Your task to perform on an android device: Search for vegetarian restaurants on Maps Image 0: 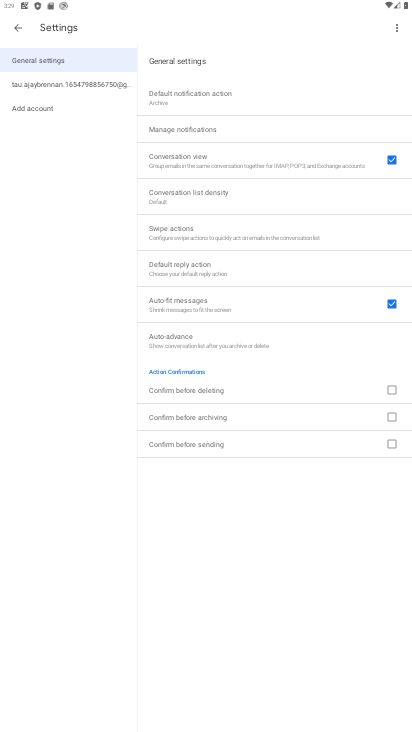
Step 0: press home button
Your task to perform on an android device: Search for vegetarian restaurants on Maps Image 1: 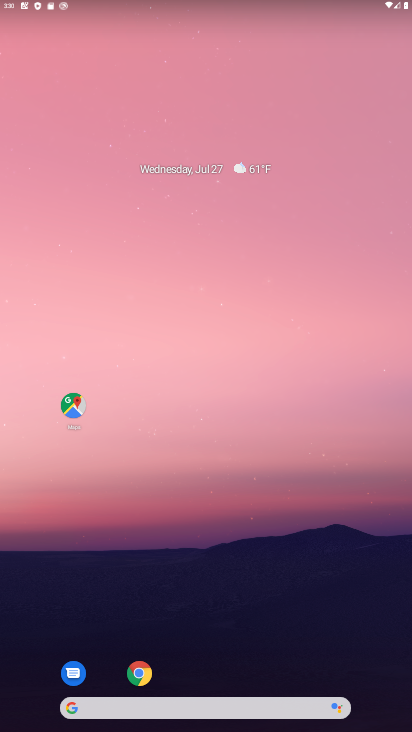
Step 1: click (69, 394)
Your task to perform on an android device: Search for vegetarian restaurants on Maps Image 2: 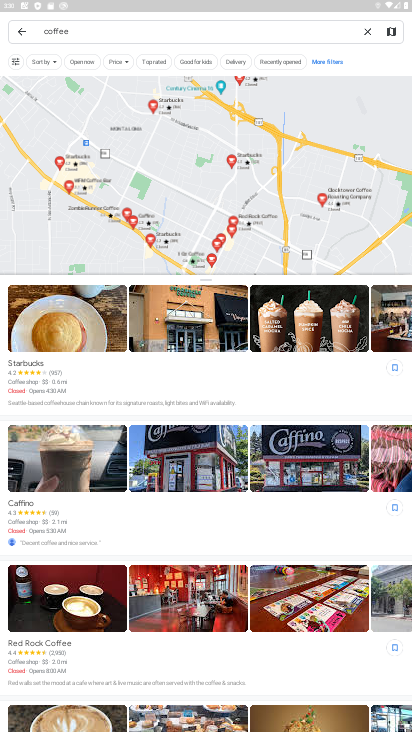
Step 2: click (364, 29)
Your task to perform on an android device: Search for vegetarian restaurants on Maps Image 3: 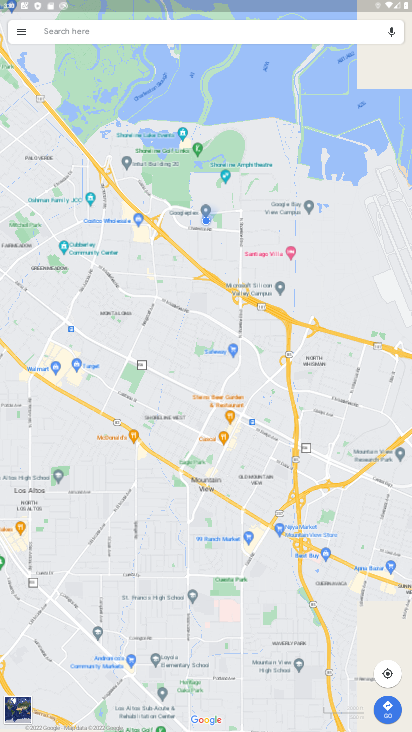
Step 3: click (139, 38)
Your task to perform on an android device: Search for vegetarian restaurants on Maps Image 4: 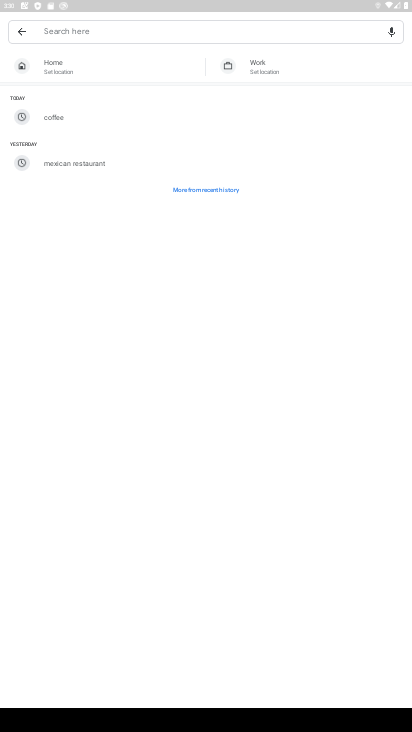
Step 4: type "vegetarian restaurant"
Your task to perform on an android device: Search for vegetarian restaurants on Maps Image 5: 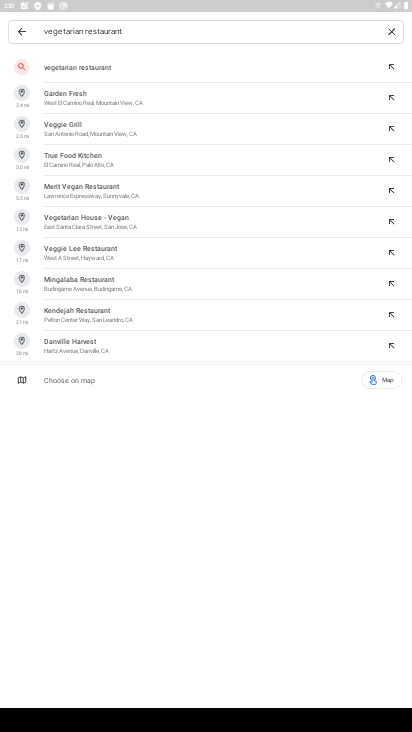
Step 5: click (178, 63)
Your task to perform on an android device: Search for vegetarian restaurants on Maps Image 6: 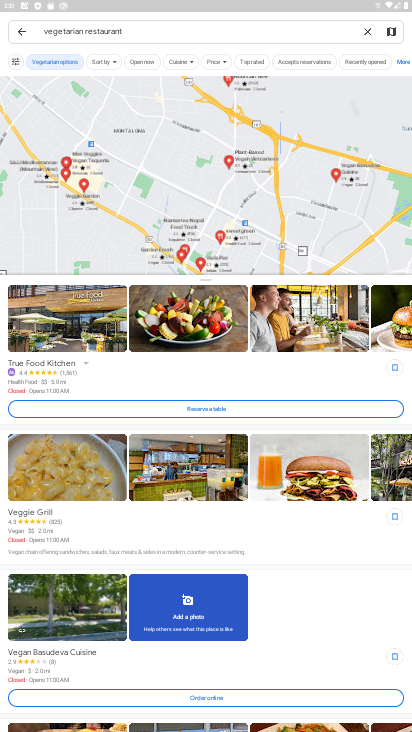
Step 6: task complete